Your task to perform on an android device: delete location history Image 0: 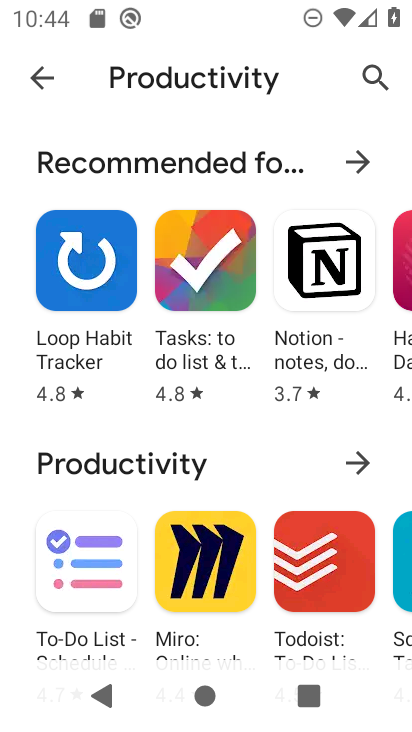
Step 0: press home button
Your task to perform on an android device: delete location history Image 1: 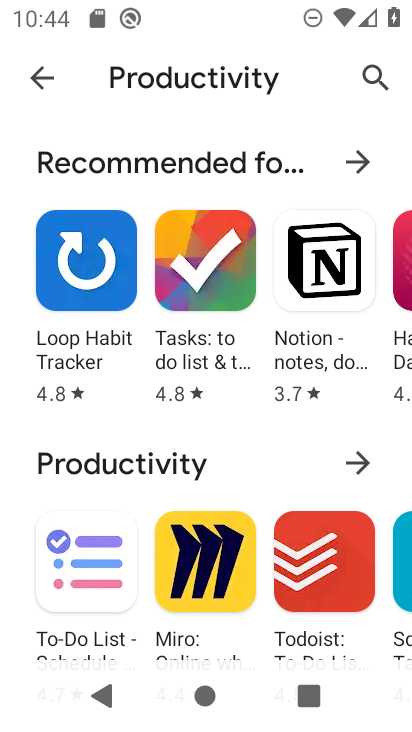
Step 1: press home button
Your task to perform on an android device: delete location history Image 2: 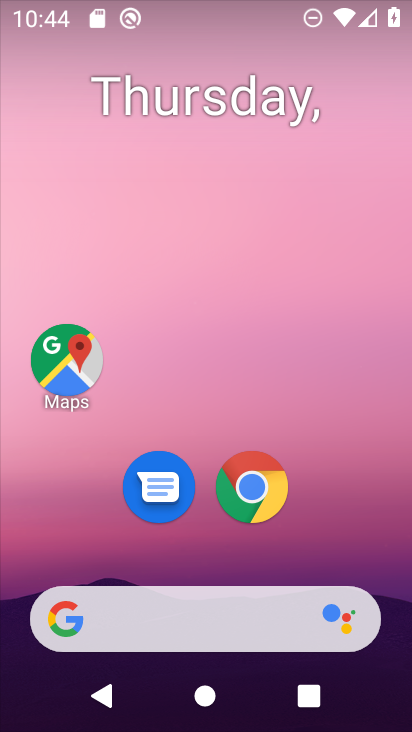
Step 2: drag from (319, 527) to (218, 118)
Your task to perform on an android device: delete location history Image 3: 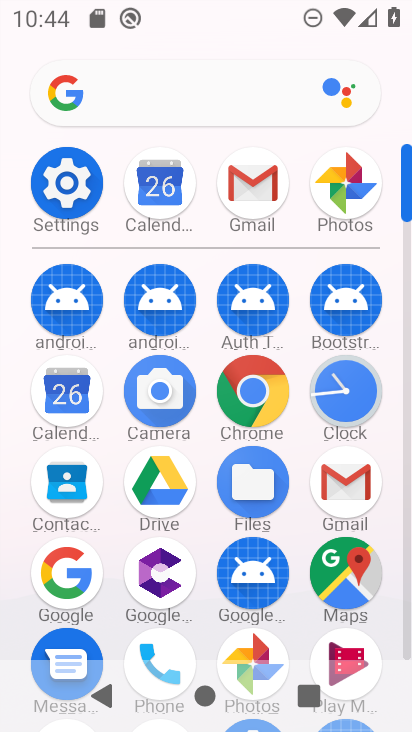
Step 3: click (328, 560)
Your task to perform on an android device: delete location history Image 4: 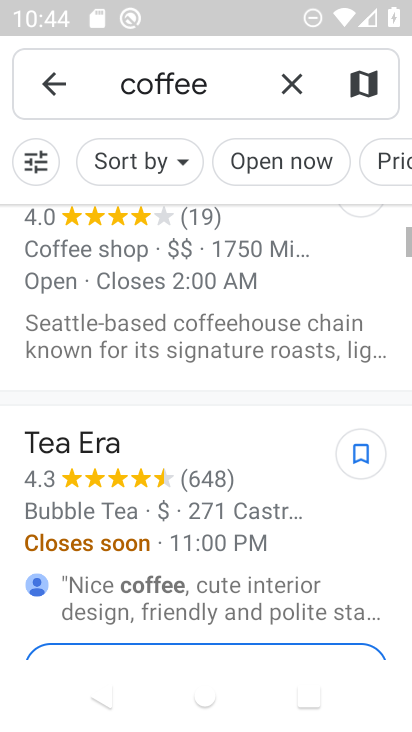
Step 4: click (61, 88)
Your task to perform on an android device: delete location history Image 5: 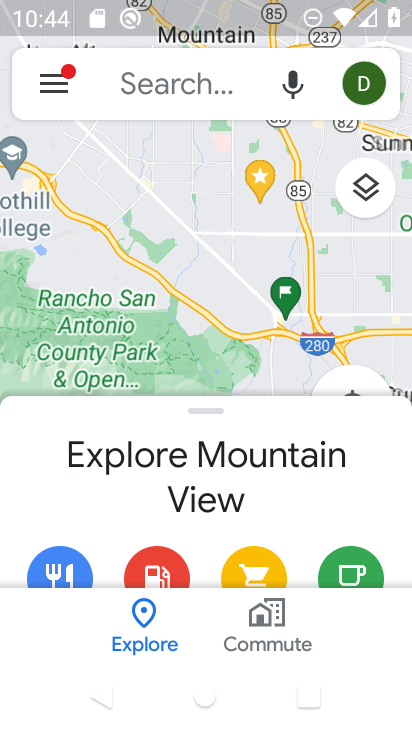
Step 5: click (61, 88)
Your task to perform on an android device: delete location history Image 6: 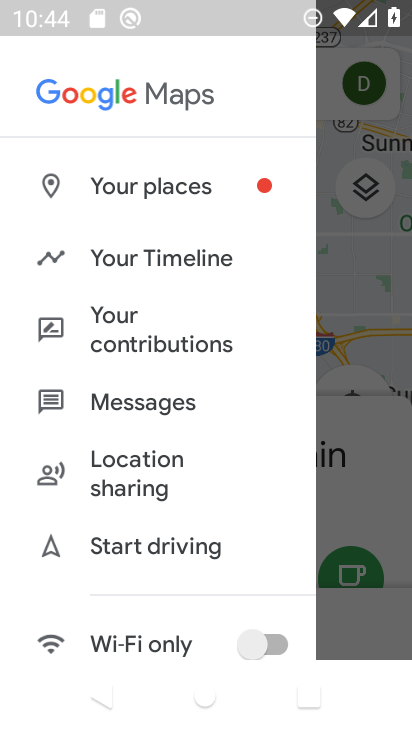
Step 6: drag from (123, 608) to (94, 210)
Your task to perform on an android device: delete location history Image 7: 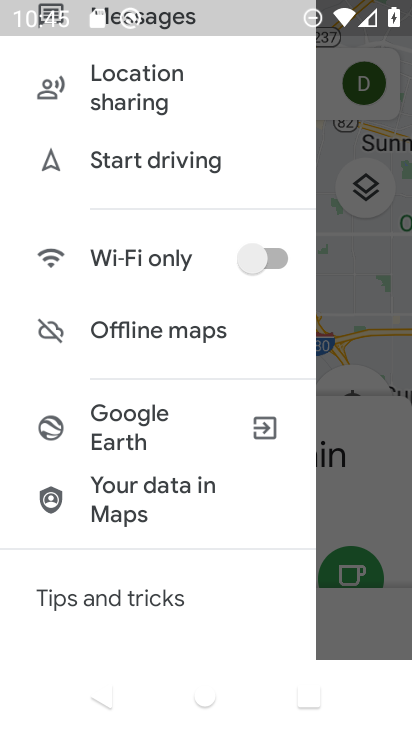
Step 7: drag from (98, 599) to (106, 277)
Your task to perform on an android device: delete location history Image 8: 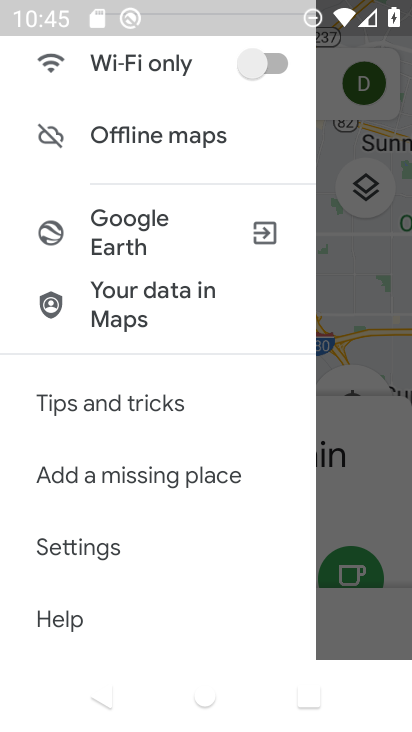
Step 8: click (88, 551)
Your task to perform on an android device: delete location history Image 9: 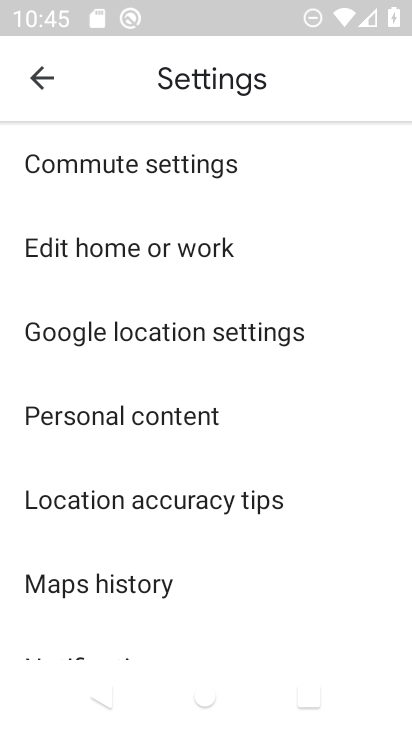
Step 9: click (84, 588)
Your task to perform on an android device: delete location history Image 10: 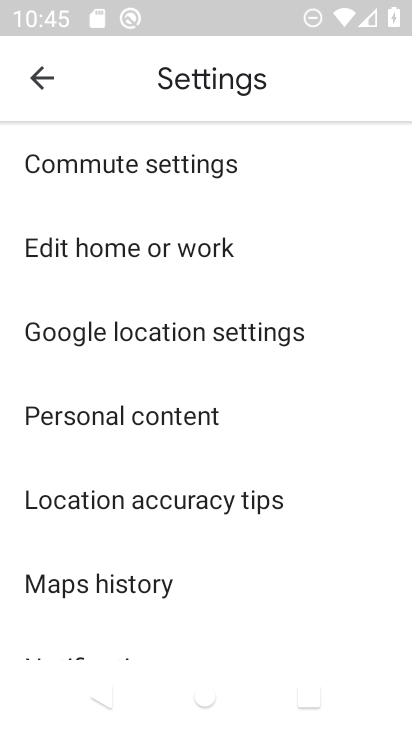
Step 10: click (108, 568)
Your task to perform on an android device: delete location history Image 11: 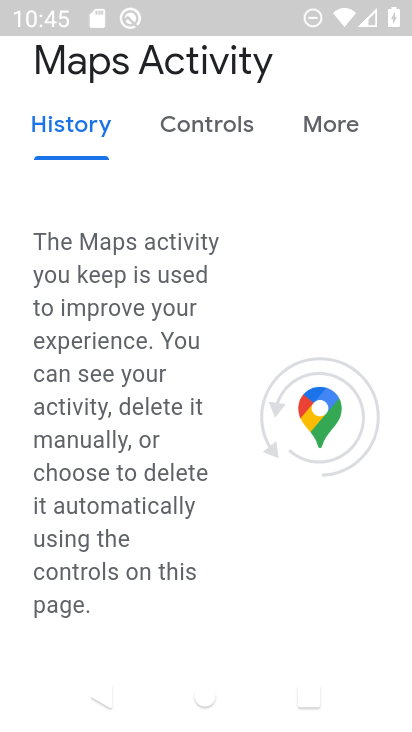
Step 11: drag from (226, 514) to (208, 134)
Your task to perform on an android device: delete location history Image 12: 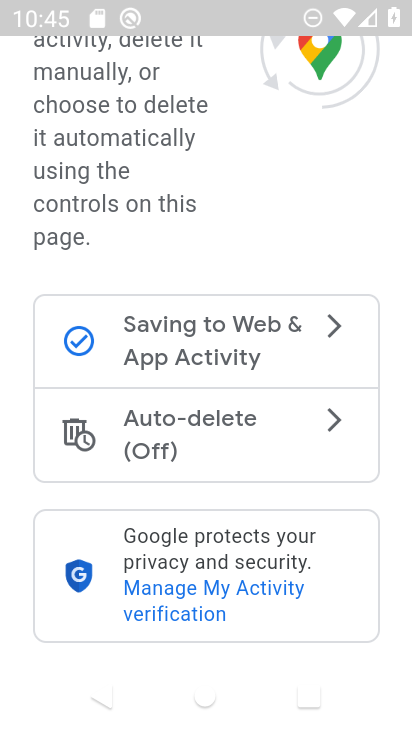
Step 12: drag from (262, 506) to (262, 377)
Your task to perform on an android device: delete location history Image 13: 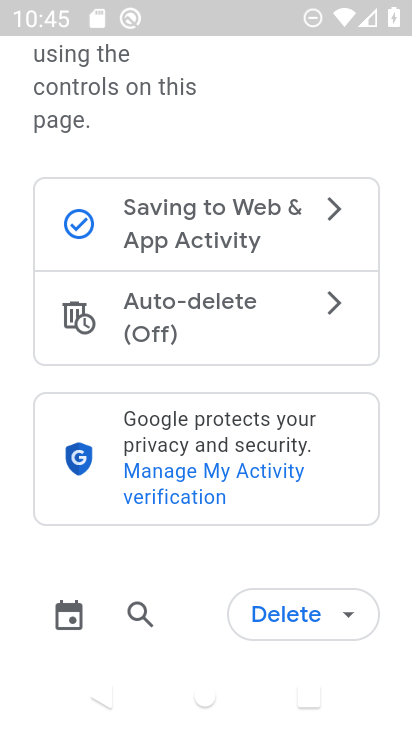
Step 13: click (293, 616)
Your task to perform on an android device: delete location history Image 14: 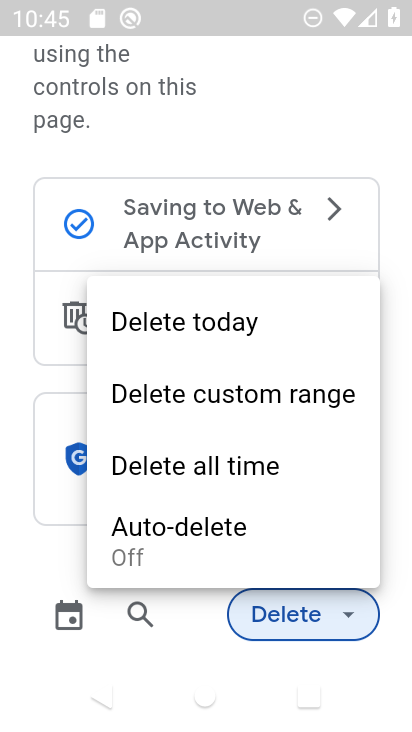
Step 14: click (250, 325)
Your task to perform on an android device: delete location history Image 15: 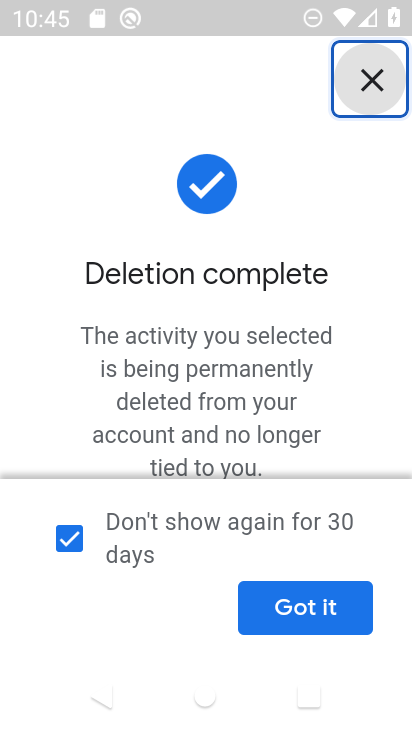
Step 15: click (287, 614)
Your task to perform on an android device: delete location history Image 16: 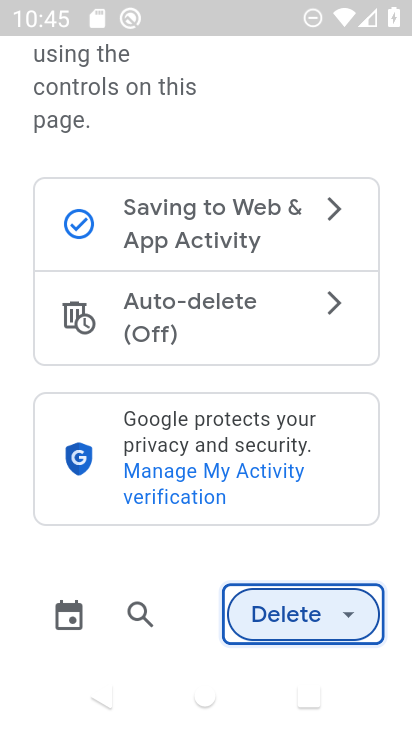
Step 16: task complete